Your task to perform on an android device: all mails in gmail Image 0: 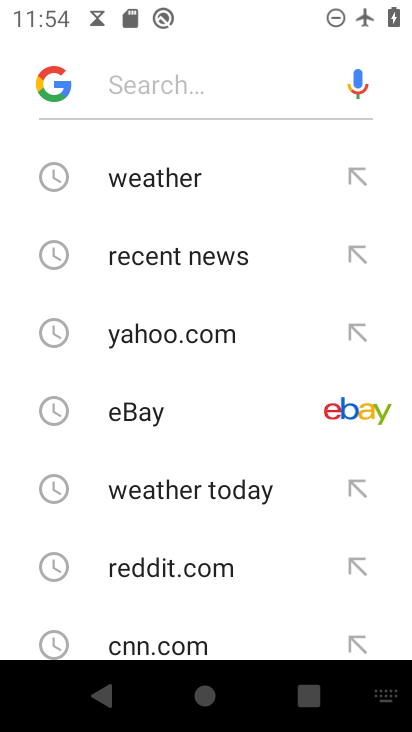
Step 0: press back button
Your task to perform on an android device: all mails in gmail Image 1: 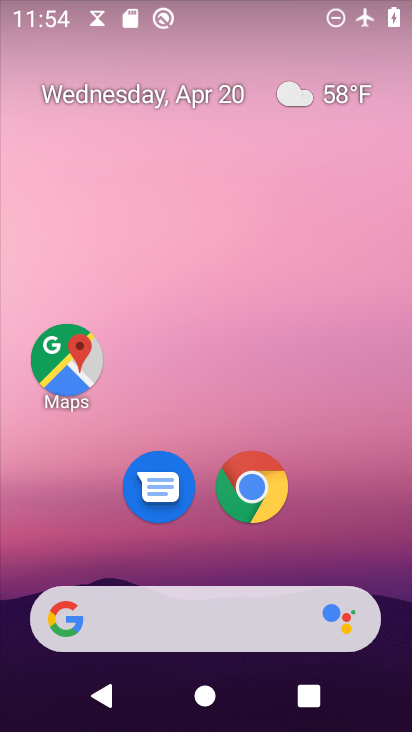
Step 1: drag from (325, 531) to (217, 42)
Your task to perform on an android device: all mails in gmail Image 2: 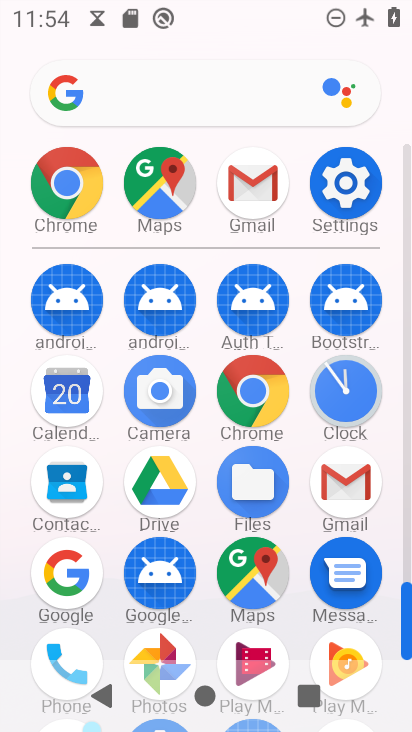
Step 2: click (253, 174)
Your task to perform on an android device: all mails in gmail Image 3: 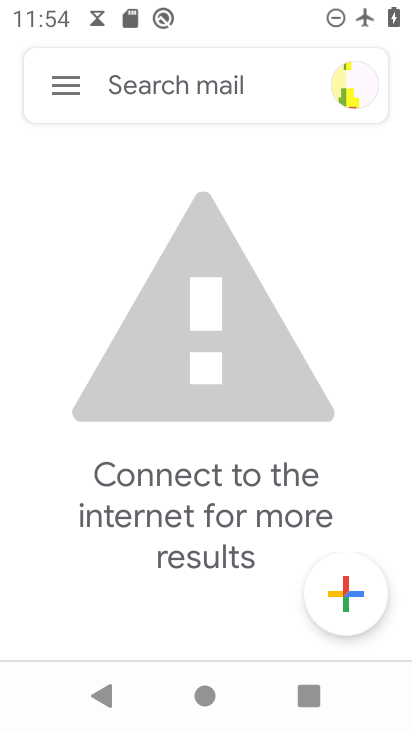
Step 3: click (48, 82)
Your task to perform on an android device: all mails in gmail Image 4: 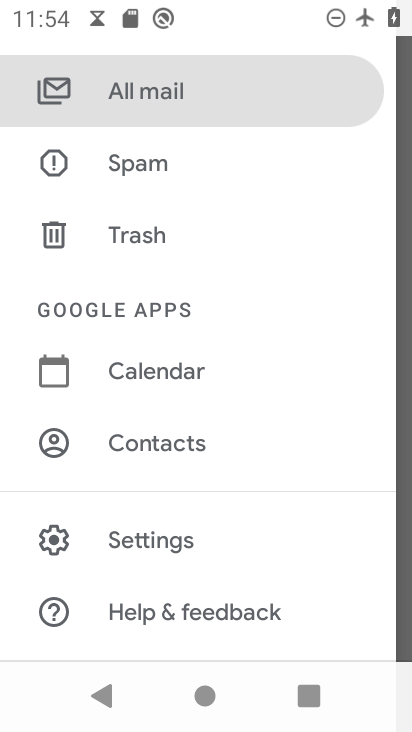
Step 4: click (145, 82)
Your task to perform on an android device: all mails in gmail Image 5: 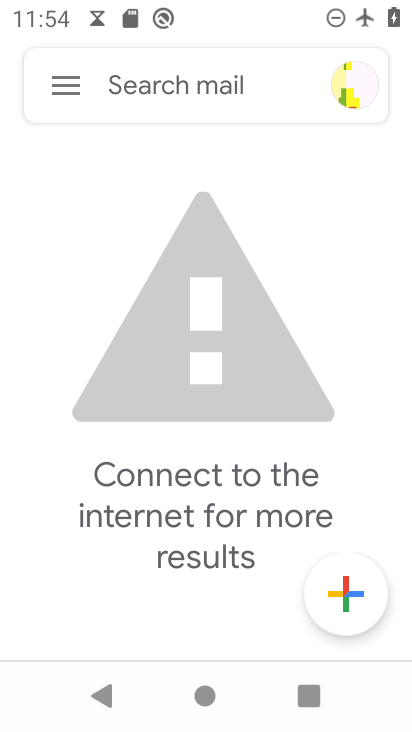
Step 5: task complete